Your task to perform on an android device: Do I have any events this weekend? Image 0: 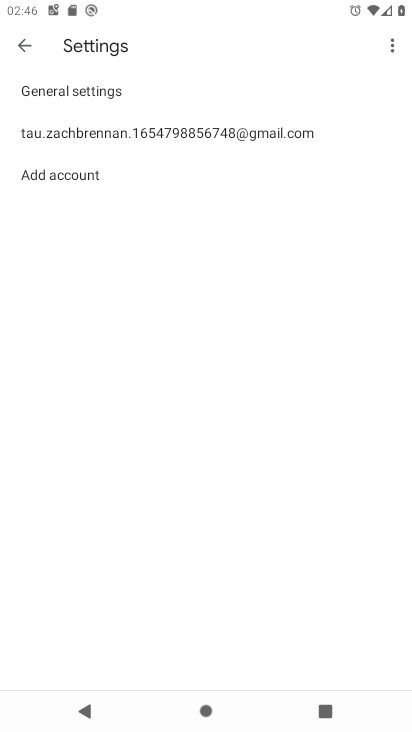
Step 0: press home button
Your task to perform on an android device: Do I have any events this weekend? Image 1: 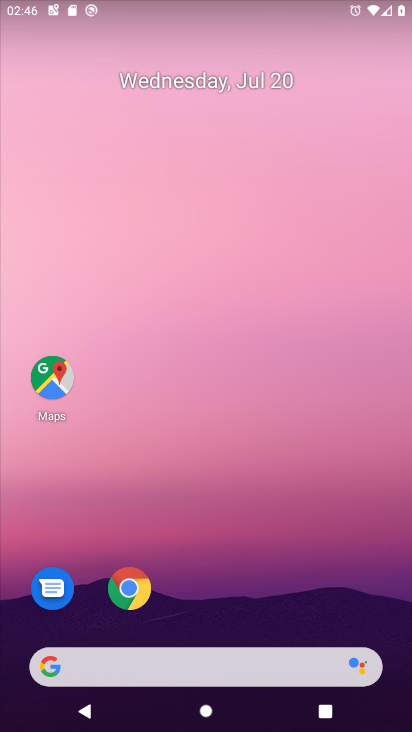
Step 1: drag from (221, 596) to (157, 15)
Your task to perform on an android device: Do I have any events this weekend? Image 2: 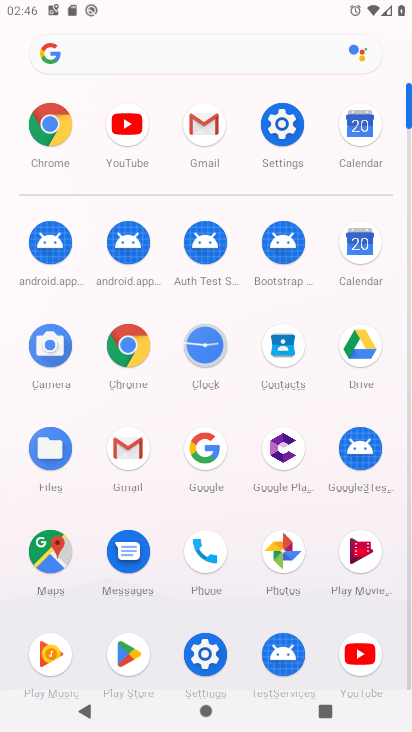
Step 2: click (349, 232)
Your task to perform on an android device: Do I have any events this weekend? Image 3: 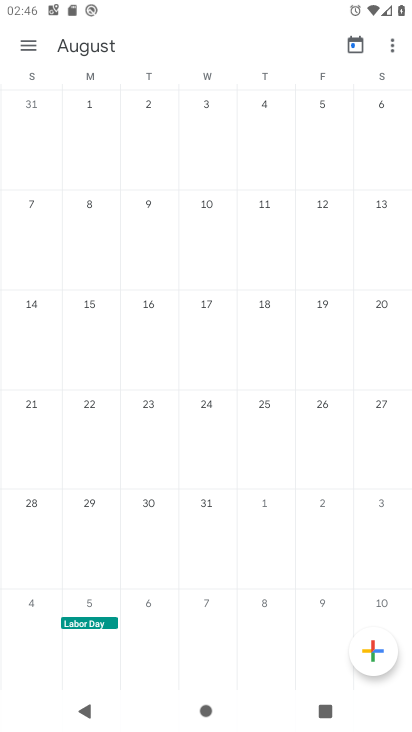
Step 3: click (19, 46)
Your task to perform on an android device: Do I have any events this weekend? Image 4: 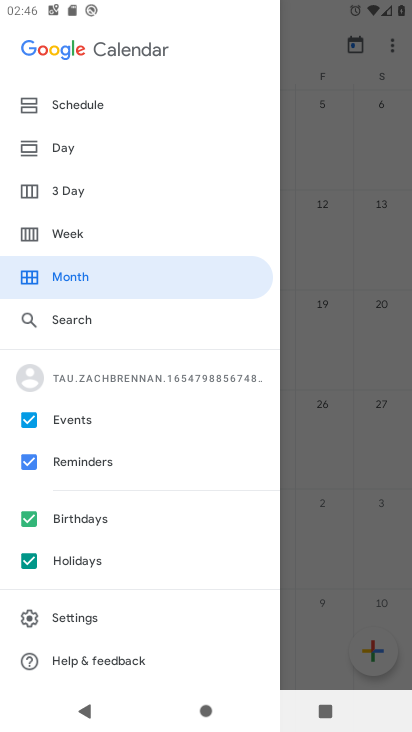
Step 4: click (78, 232)
Your task to perform on an android device: Do I have any events this weekend? Image 5: 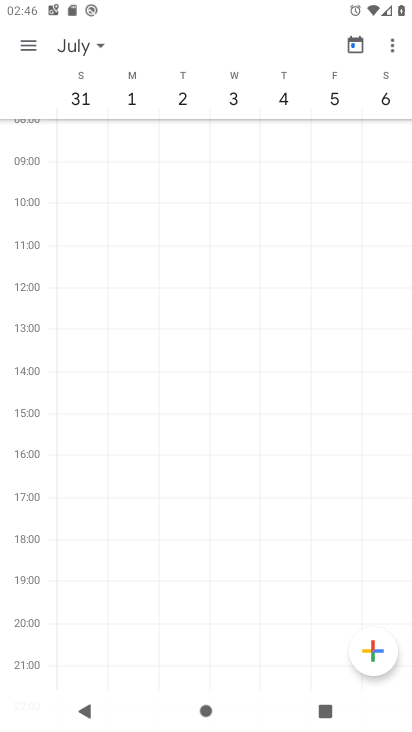
Step 5: task complete